Your task to perform on an android device: turn on sleep mode Image 0: 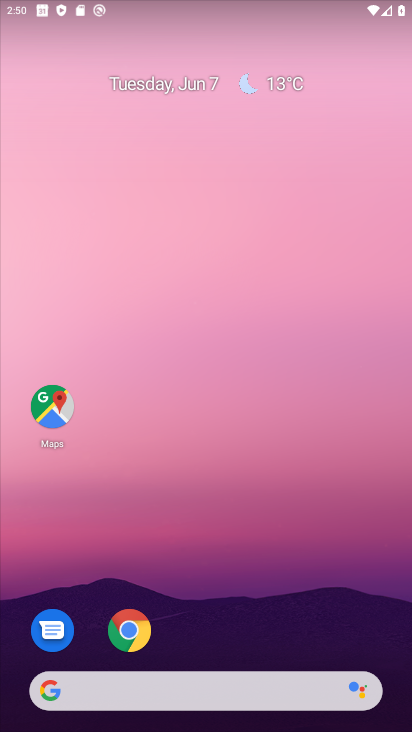
Step 0: drag from (217, 688) to (259, 1)
Your task to perform on an android device: turn on sleep mode Image 1: 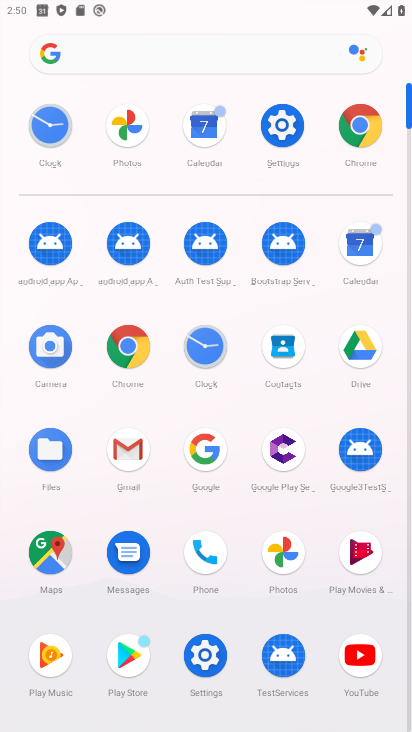
Step 1: click (203, 632)
Your task to perform on an android device: turn on sleep mode Image 2: 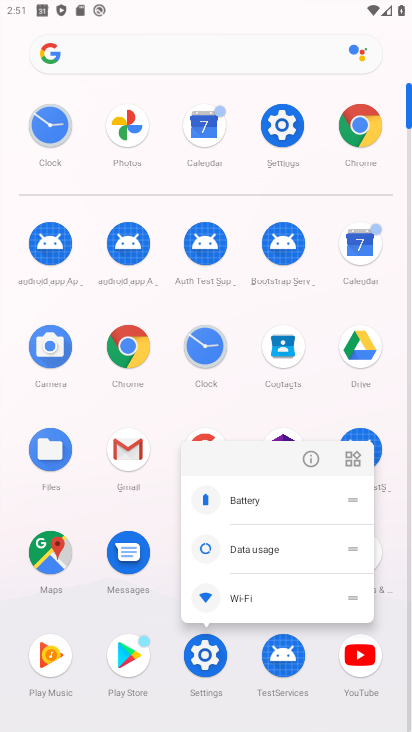
Step 2: click (216, 658)
Your task to perform on an android device: turn on sleep mode Image 3: 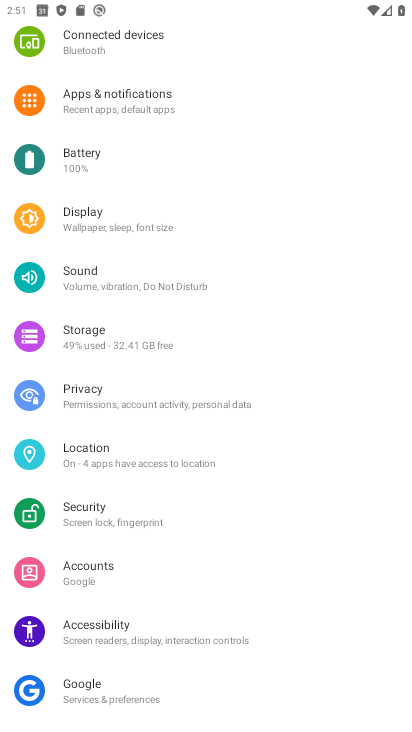
Step 3: click (105, 268)
Your task to perform on an android device: turn on sleep mode Image 4: 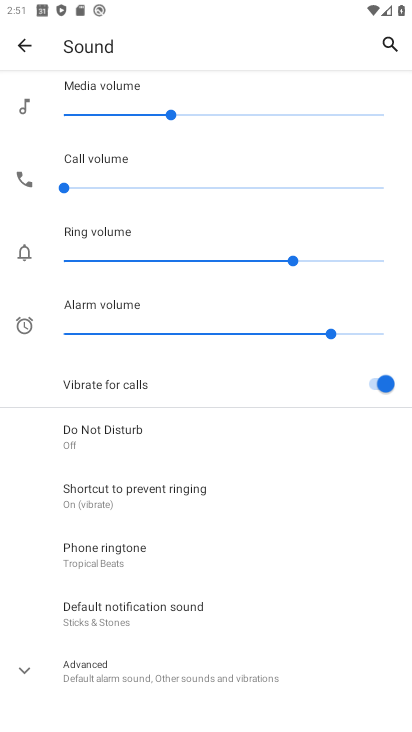
Step 4: drag from (163, 611) to (298, 201)
Your task to perform on an android device: turn on sleep mode Image 5: 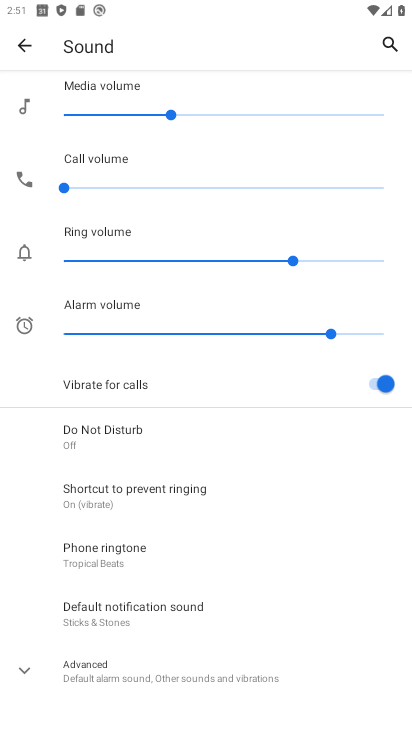
Step 5: click (126, 655)
Your task to perform on an android device: turn on sleep mode Image 6: 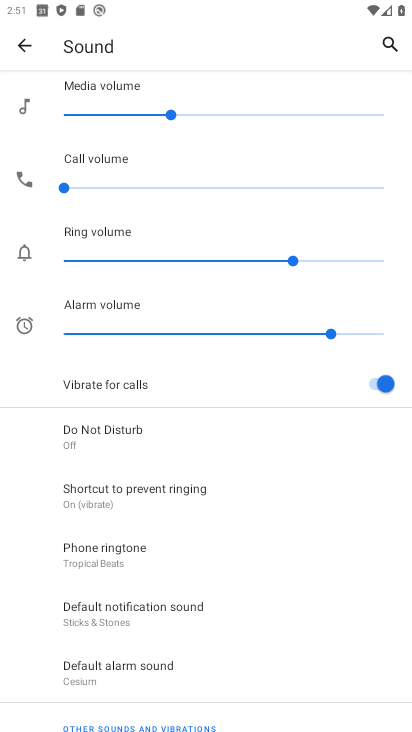
Step 6: task complete